Your task to perform on an android device: Go to battery settings Image 0: 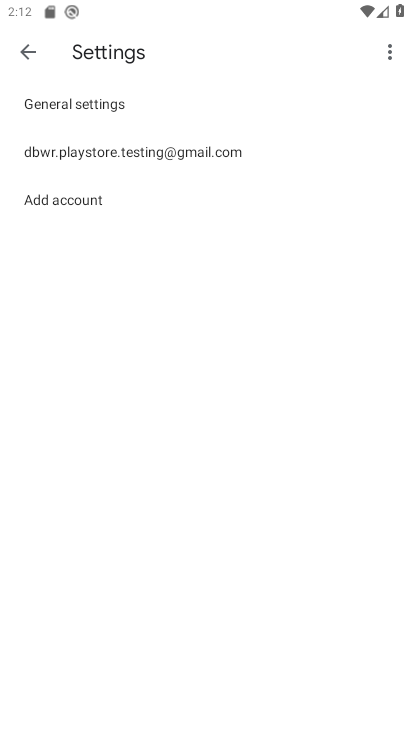
Step 0: press home button
Your task to perform on an android device: Go to battery settings Image 1: 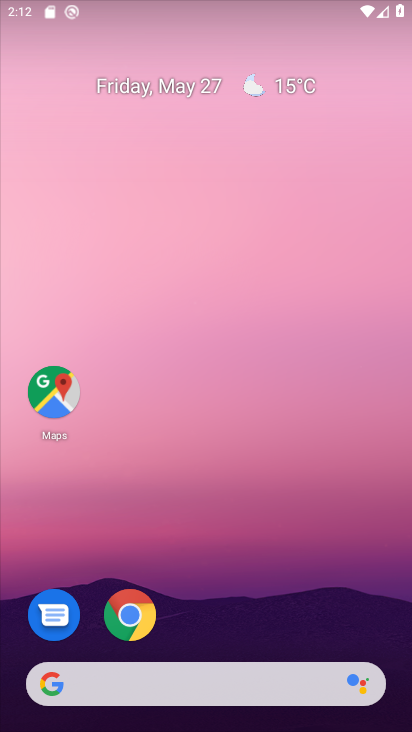
Step 1: drag from (280, 448) to (206, 45)
Your task to perform on an android device: Go to battery settings Image 2: 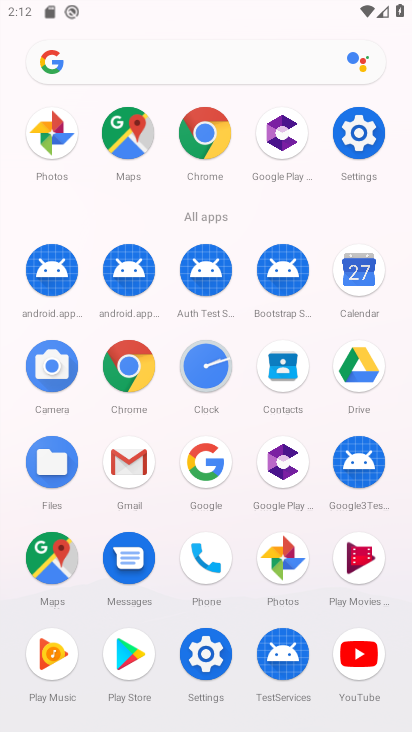
Step 2: click (359, 147)
Your task to perform on an android device: Go to battery settings Image 3: 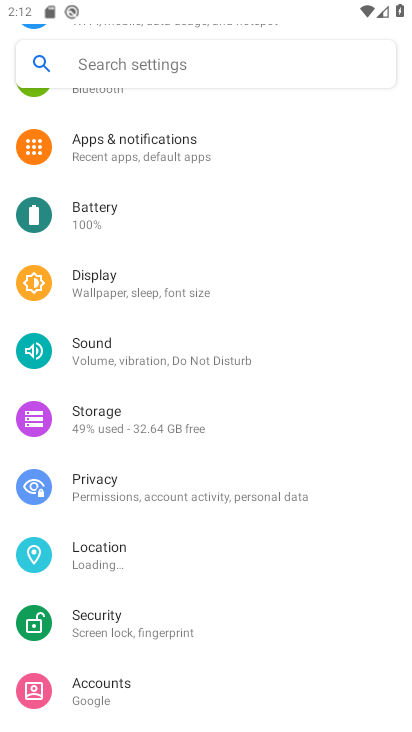
Step 3: click (142, 220)
Your task to perform on an android device: Go to battery settings Image 4: 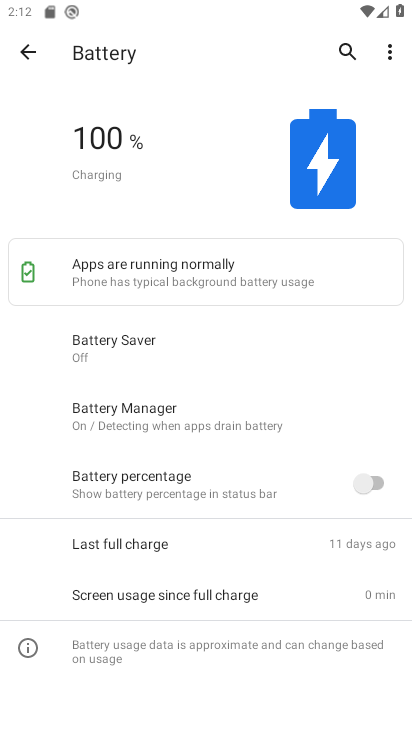
Step 4: task complete